Your task to perform on an android device: change the clock style Image 0: 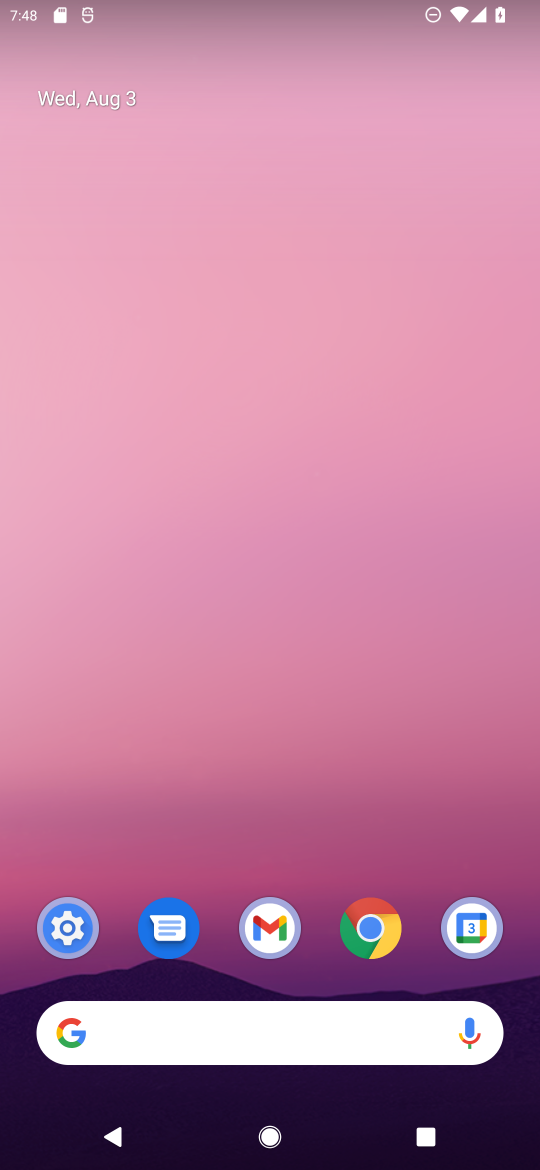
Step 0: drag from (415, 854) to (250, 27)
Your task to perform on an android device: change the clock style Image 1: 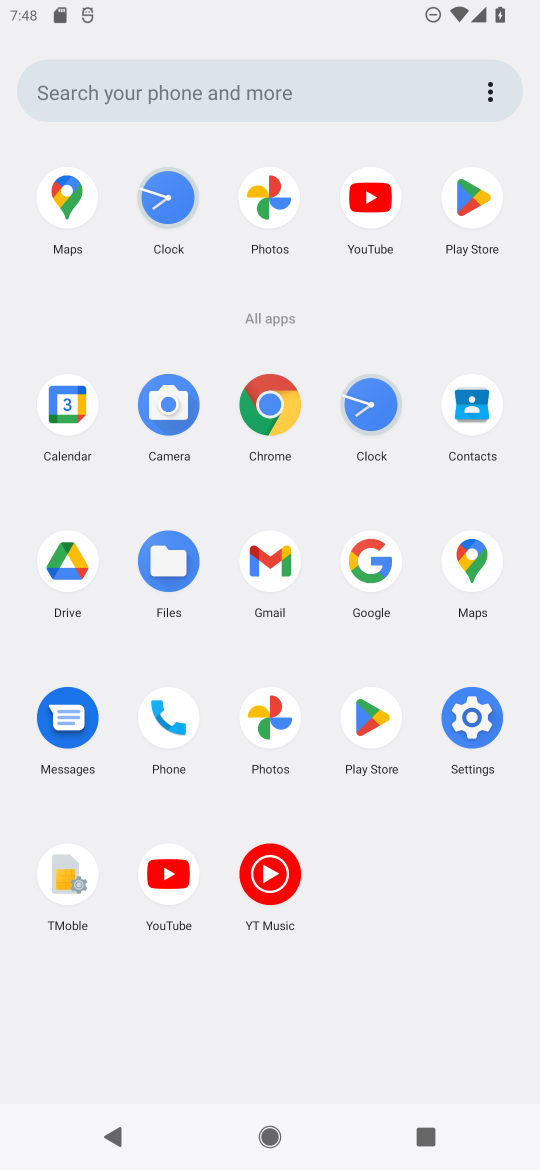
Step 1: click (172, 198)
Your task to perform on an android device: change the clock style Image 2: 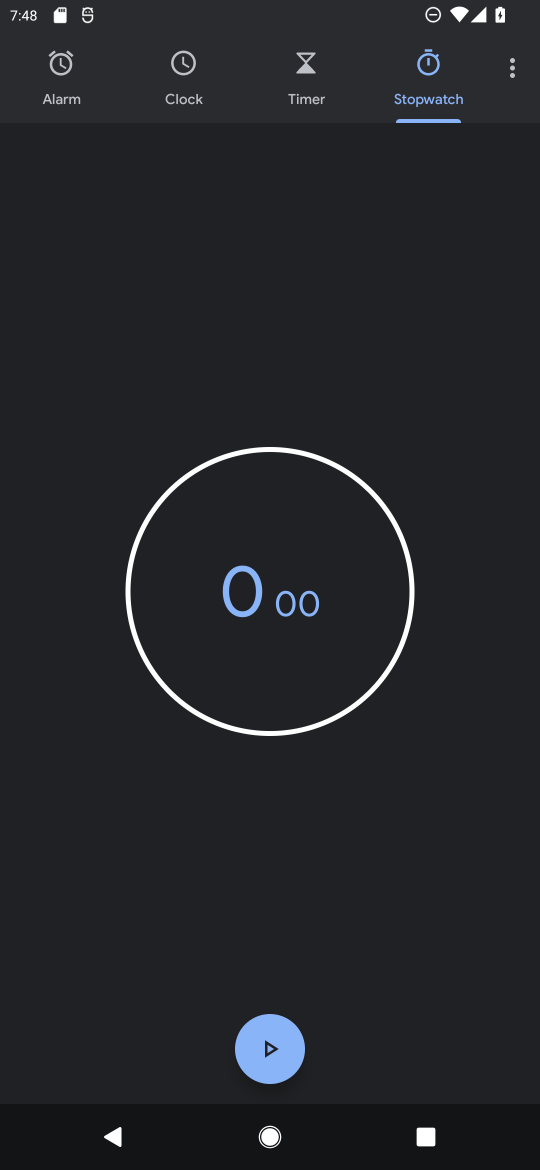
Step 2: click (504, 79)
Your task to perform on an android device: change the clock style Image 3: 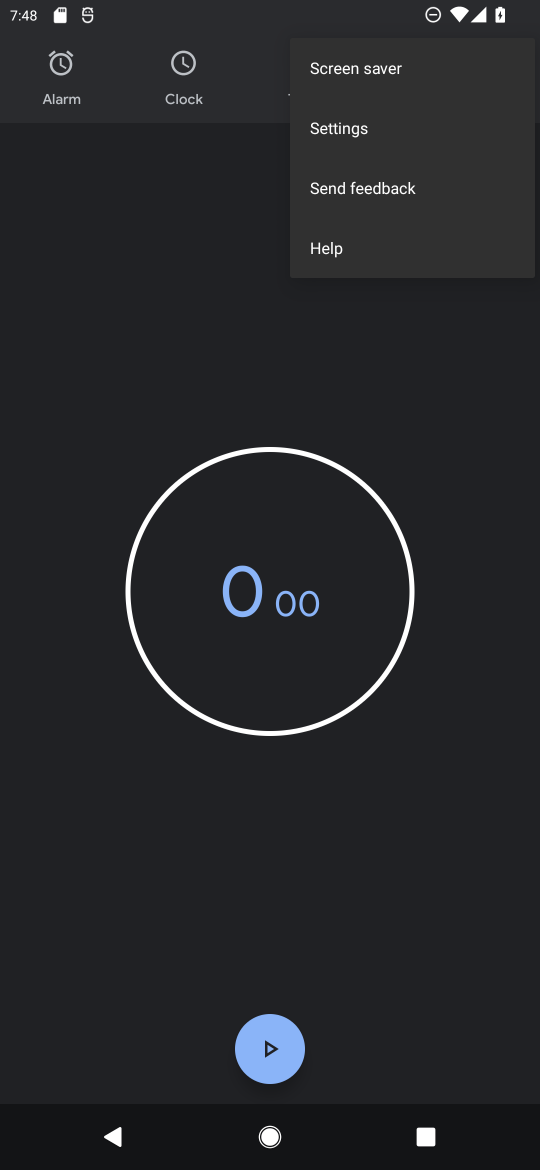
Step 3: click (393, 124)
Your task to perform on an android device: change the clock style Image 4: 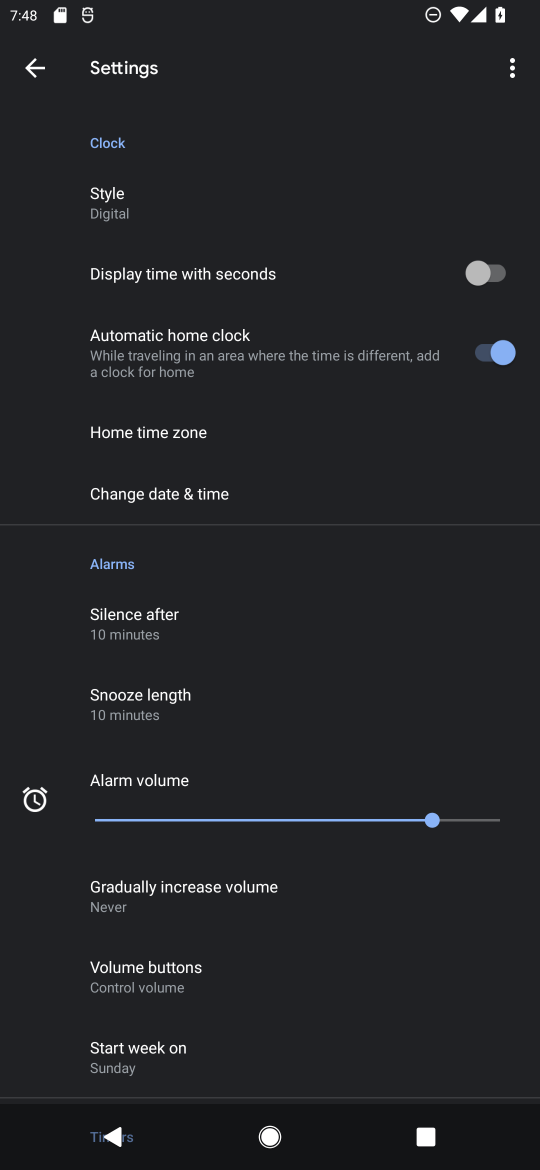
Step 4: click (160, 221)
Your task to perform on an android device: change the clock style Image 5: 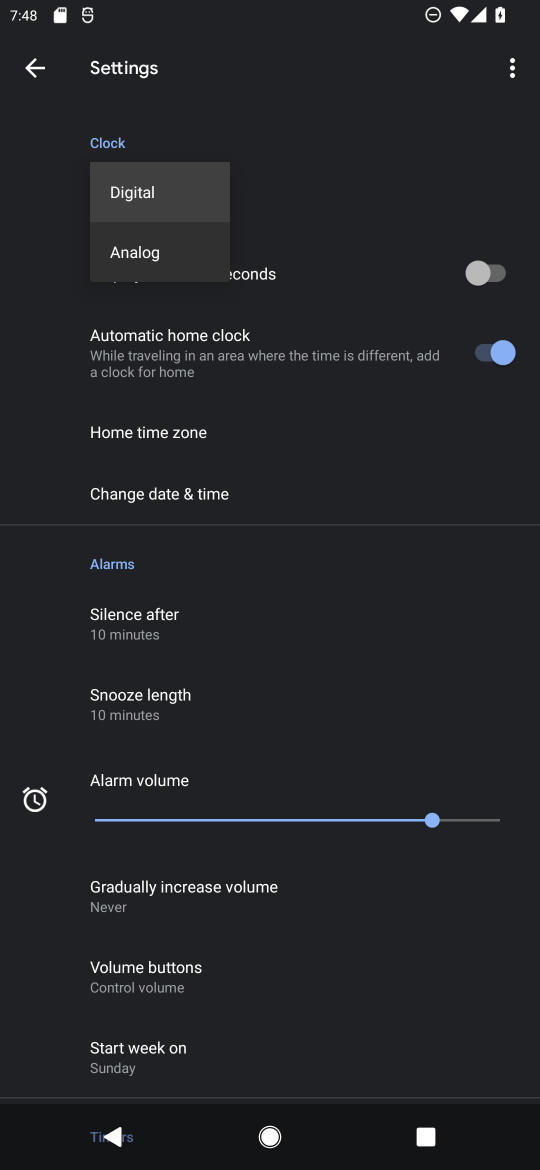
Step 5: click (150, 271)
Your task to perform on an android device: change the clock style Image 6: 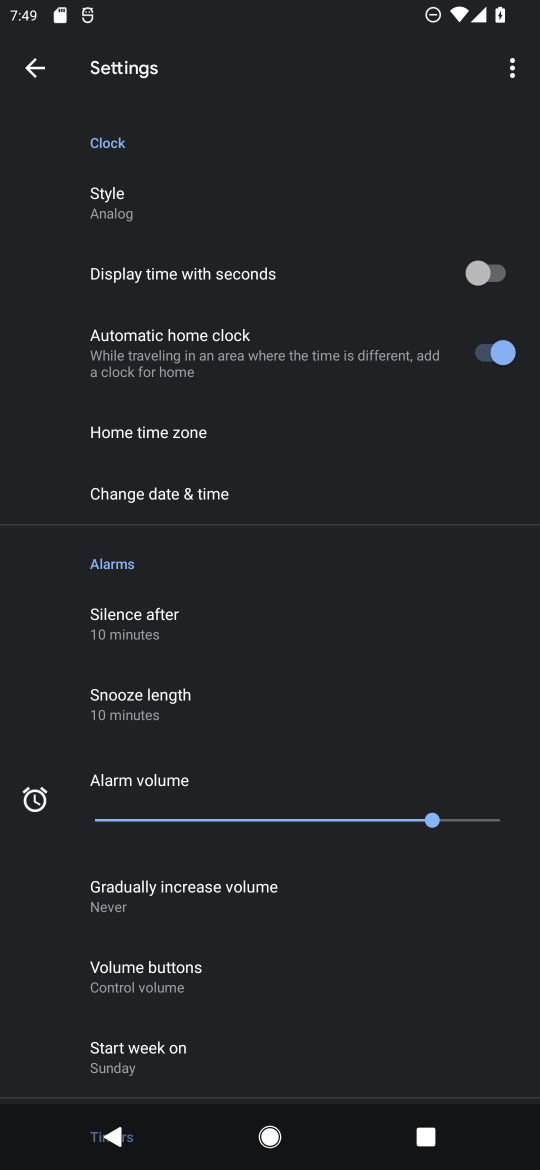
Step 6: task complete